Your task to perform on an android device: toggle show notifications on the lock screen Image 0: 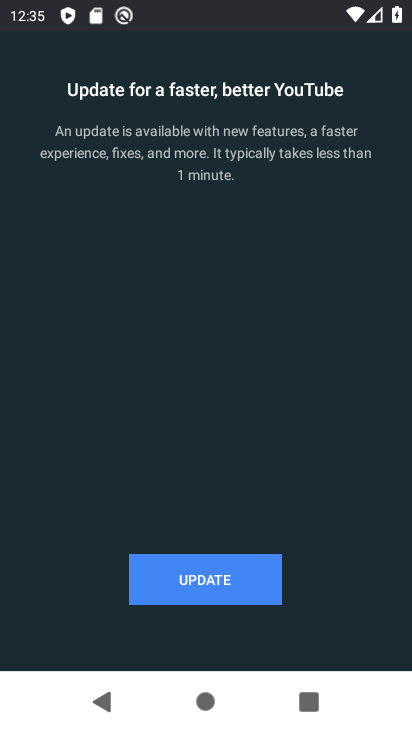
Step 0: press home button
Your task to perform on an android device: toggle show notifications on the lock screen Image 1: 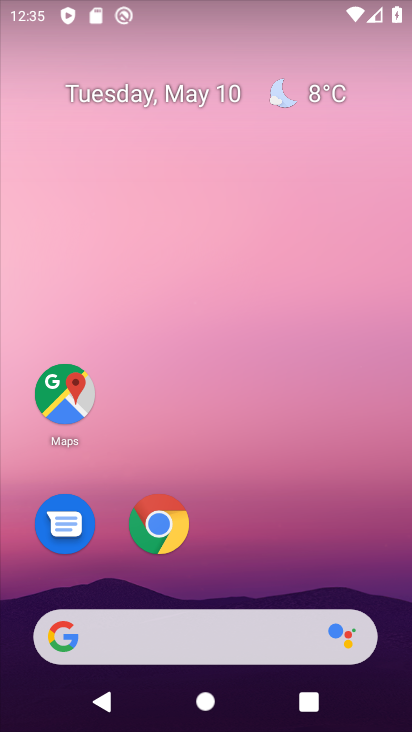
Step 1: drag from (277, 534) to (286, 278)
Your task to perform on an android device: toggle show notifications on the lock screen Image 2: 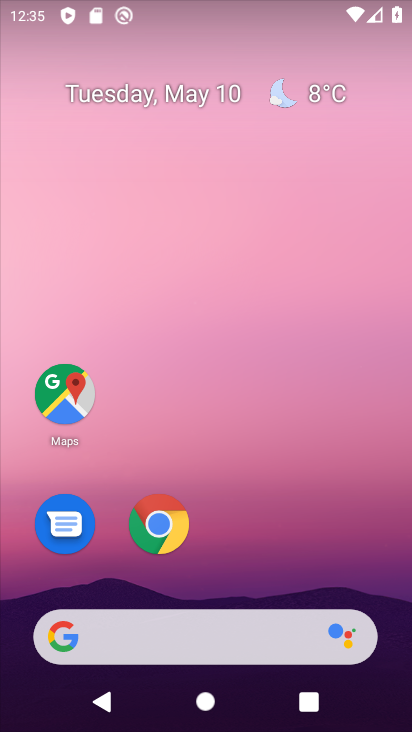
Step 2: drag from (291, 590) to (287, 27)
Your task to perform on an android device: toggle show notifications on the lock screen Image 3: 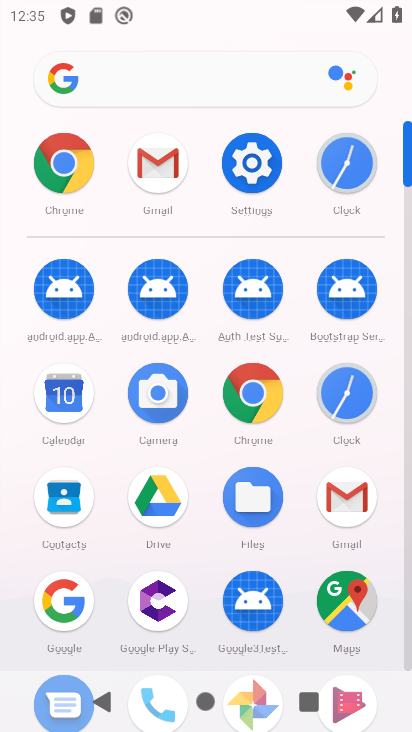
Step 3: click (261, 156)
Your task to perform on an android device: toggle show notifications on the lock screen Image 4: 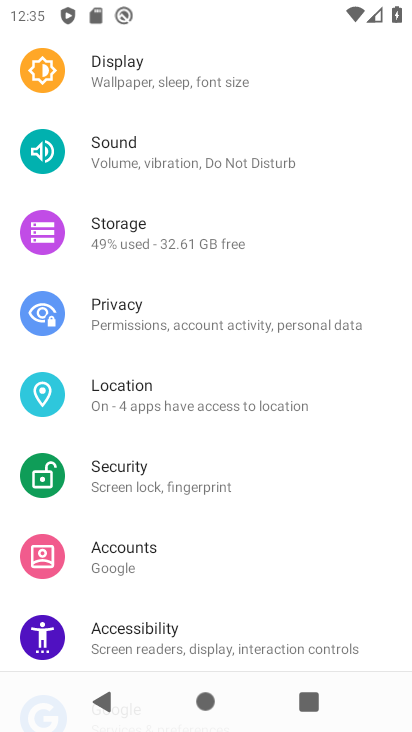
Step 4: drag from (261, 156) to (240, 427)
Your task to perform on an android device: toggle show notifications on the lock screen Image 5: 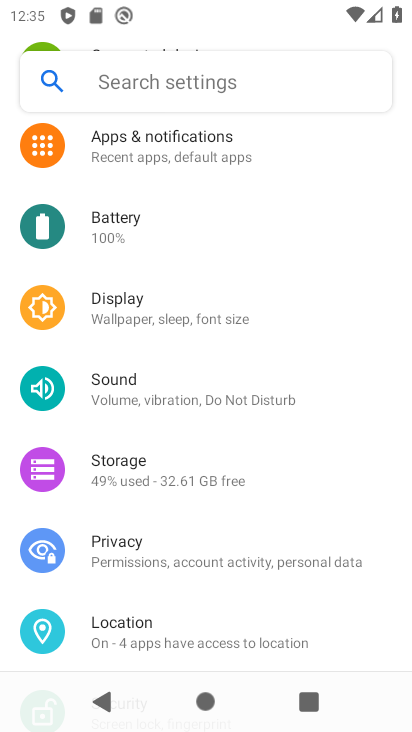
Step 5: click (234, 151)
Your task to perform on an android device: toggle show notifications on the lock screen Image 6: 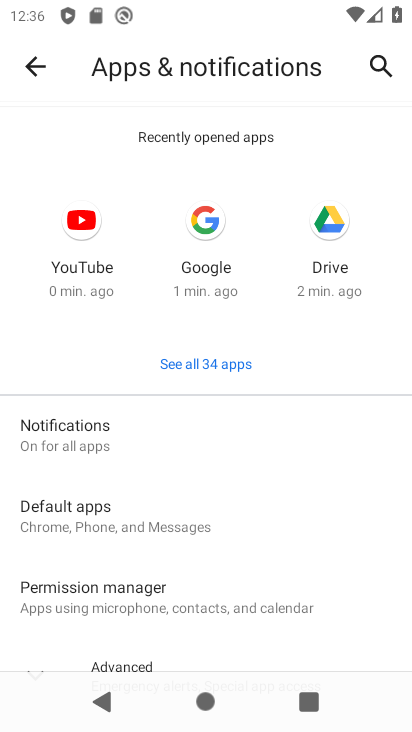
Step 6: click (93, 424)
Your task to perform on an android device: toggle show notifications on the lock screen Image 7: 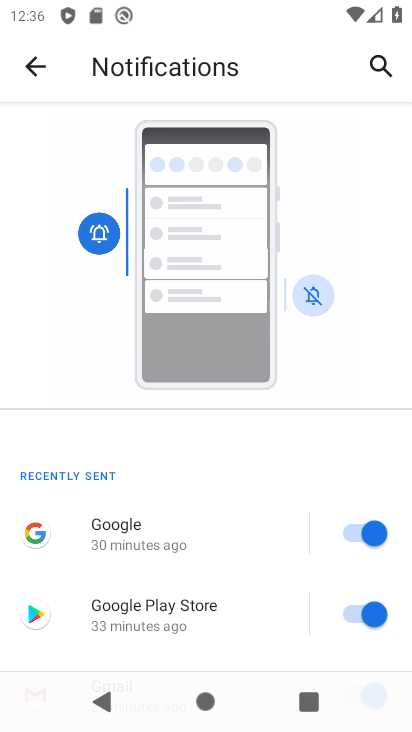
Step 7: drag from (263, 548) to (271, 161)
Your task to perform on an android device: toggle show notifications on the lock screen Image 8: 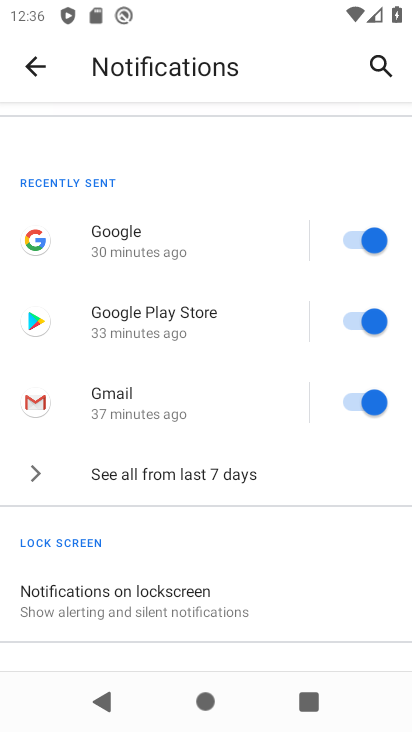
Step 8: click (224, 598)
Your task to perform on an android device: toggle show notifications on the lock screen Image 9: 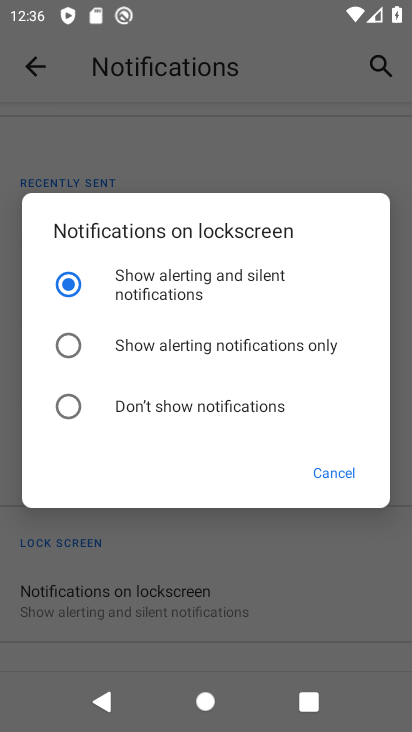
Step 9: click (72, 403)
Your task to perform on an android device: toggle show notifications on the lock screen Image 10: 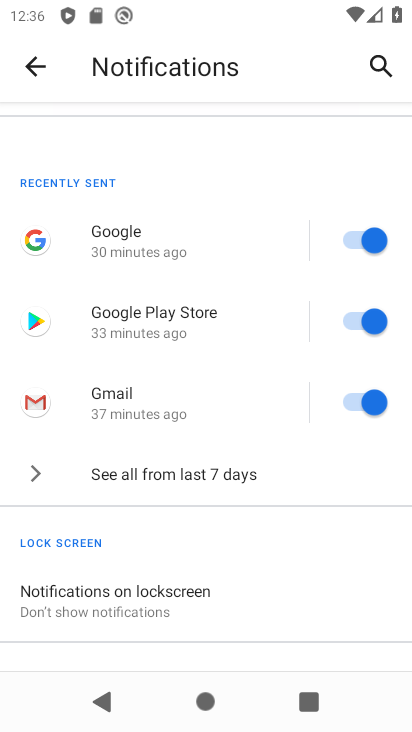
Step 10: task complete